Your task to perform on an android device: open a bookmark in the chrome app Image 0: 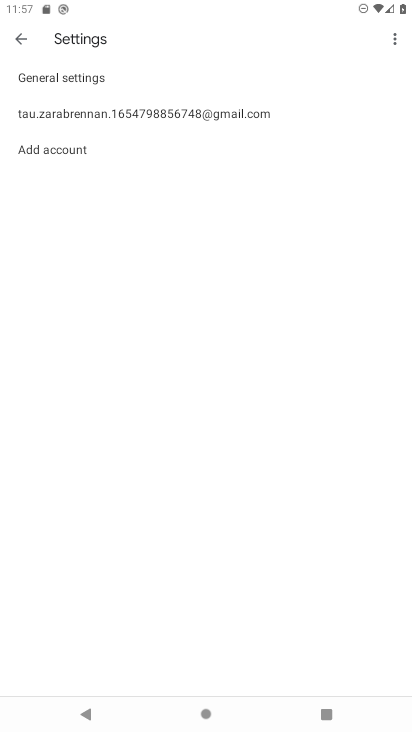
Step 0: press home button
Your task to perform on an android device: open a bookmark in the chrome app Image 1: 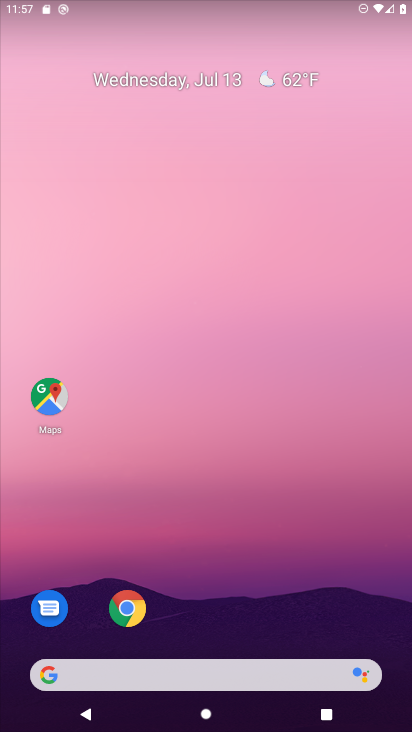
Step 1: click (128, 610)
Your task to perform on an android device: open a bookmark in the chrome app Image 2: 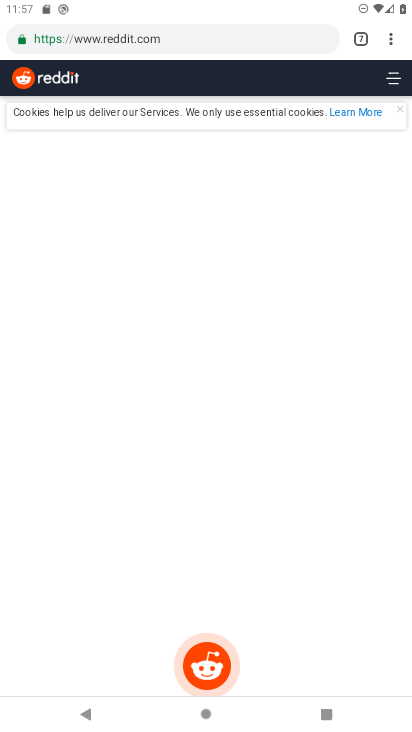
Step 2: click (390, 38)
Your task to perform on an android device: open a bookmark in the chrome app Image 3: 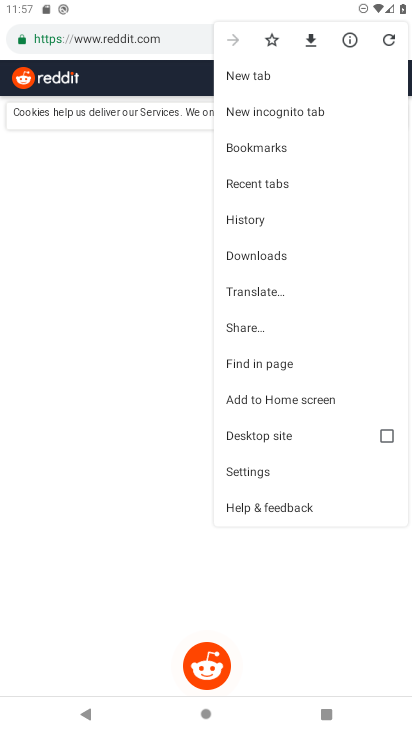
Step 3: click (273, 150)
Your task to perform on an android device: open a bookmark in the chrome app Image 4: 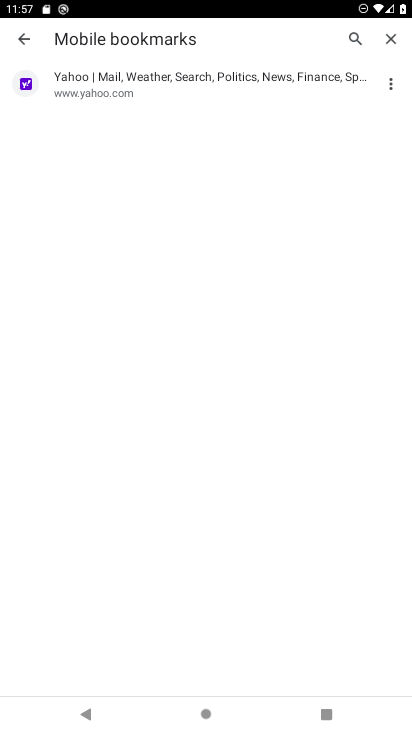
Step 4: click (161, 74)
Your task to perform on an android device: open a bookmark in the chrome app Image 5: 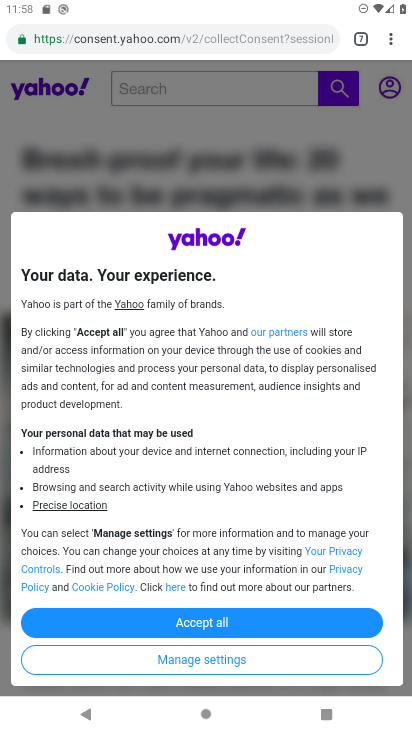
Step 5: task complete